Your task to perform on an android device: When is my next appointment? Image 0: 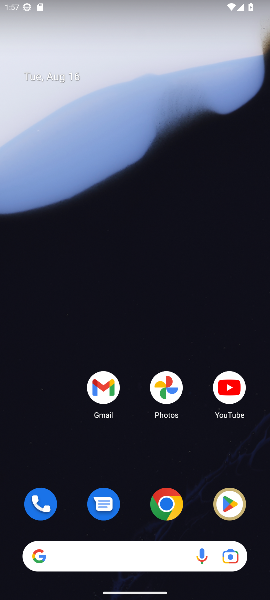
Step 0: drag from (129, 488) to (91, 184)
Your task to perform on an android device: When is my next appointment? Image 1: 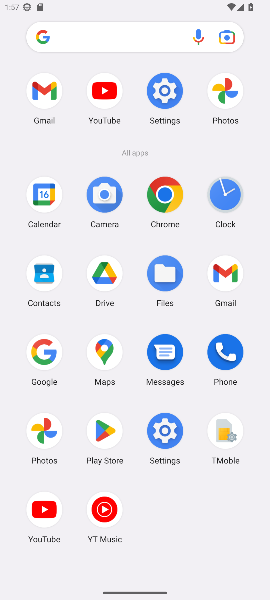
Step 1: click (41, 190)
Your task to perform on an android device: When is my next appointment? Image 2: 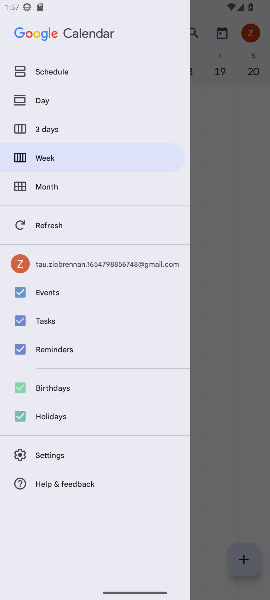
Step 2: click (41, 97)
Your task to perform on an android device: When is my next appointment? Image 3: 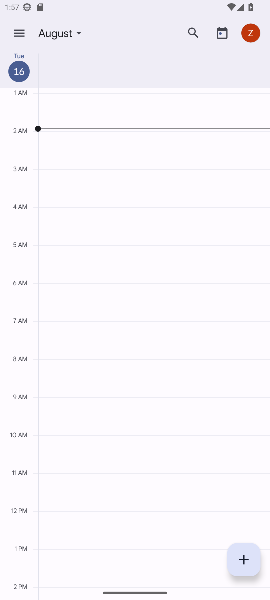
Step 3: task complete